Your task to perform on an android device: refresh tabs in the chrome app Image 0: 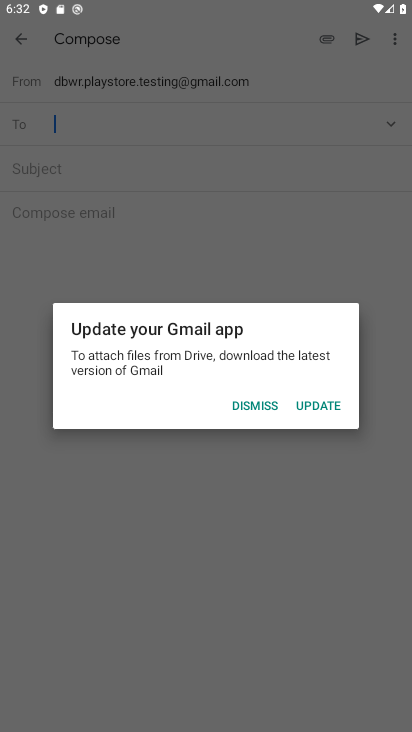
Step 0: press home button
Your task to perform on an android device: refresh tabs in the chrome app Image 1: 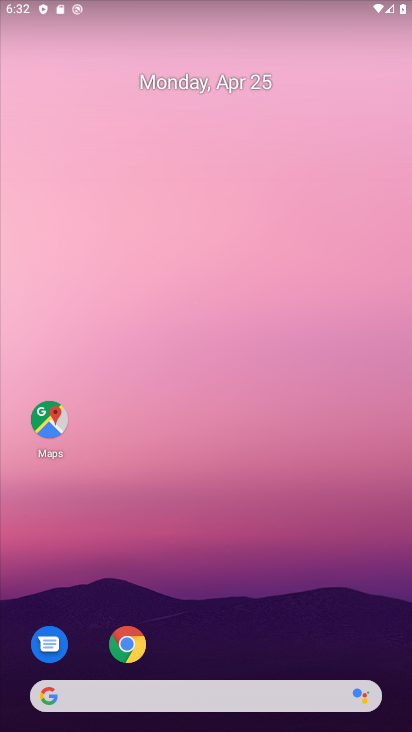
Step 1: click (132, 641)
Your task to perform on an android device: refresh tabs in the chrome app Image 2: 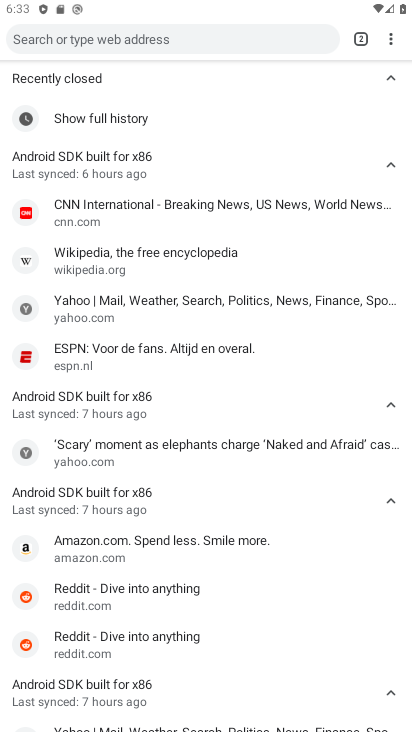
Step 2: click (362, 36)
Your task to perform on an android device: refresh tabs in the chrome app Image 3: 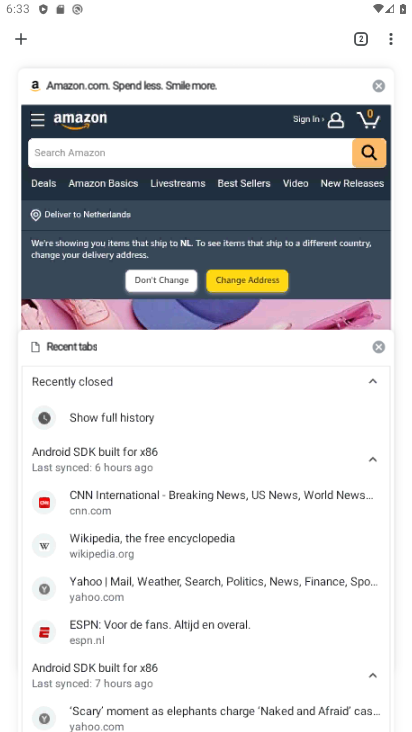
Step 3: click (14, 29)
Your task to perform on an android device: refresh tabs in the chrome app Image 4: 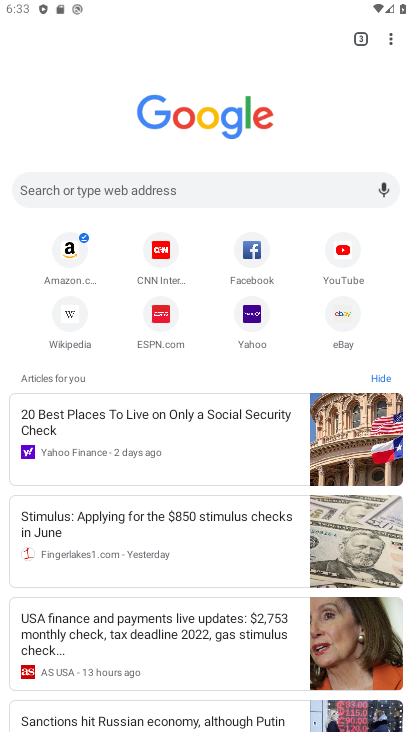
Step 4: click (392, 33)
Your task to perform on an android device: refresh tabs in the chrome app Image 5: 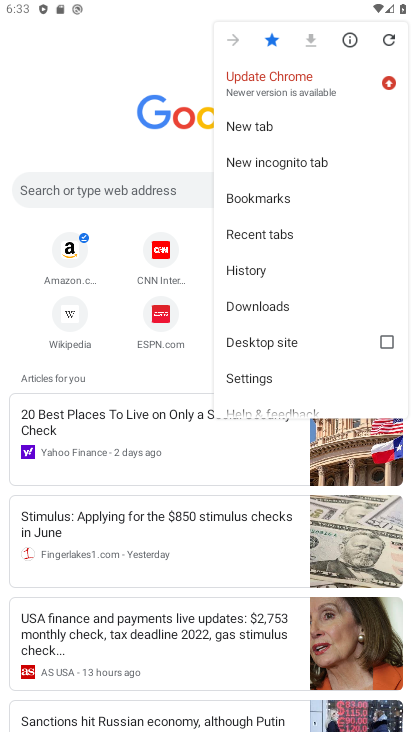
Step 5: click (391, 42)
Your task to perform on an android device: refresh tabs in the chrome app Image 6: 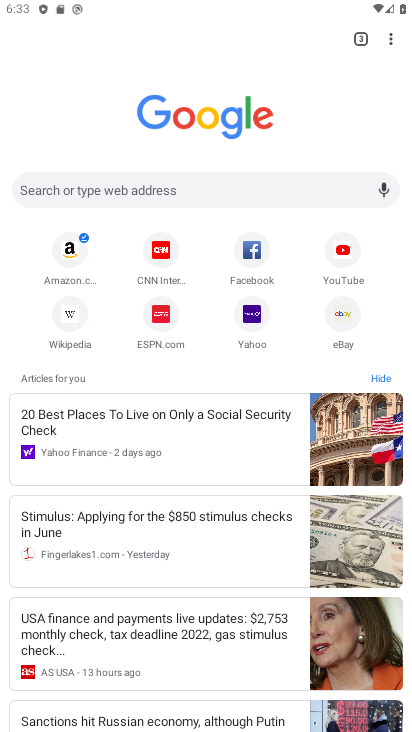
Step 6: click (391, 35)
Your task to perform on an android device: refresh tabs in the chrome app Image 7: 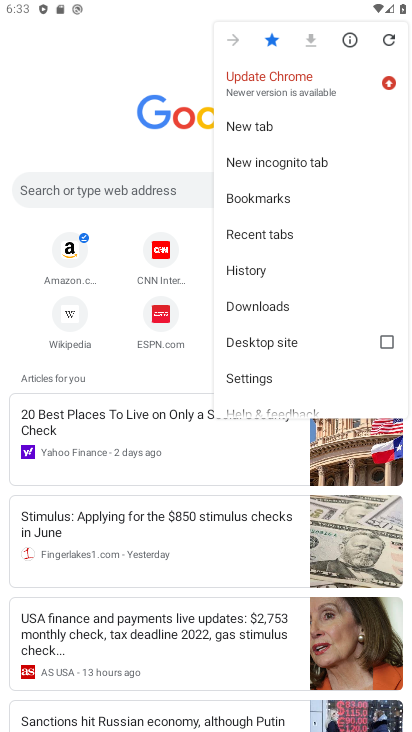
Step 7: click (390, 38)
Your task to perform on an android device: refresh tabs in the chrome app Image 8: 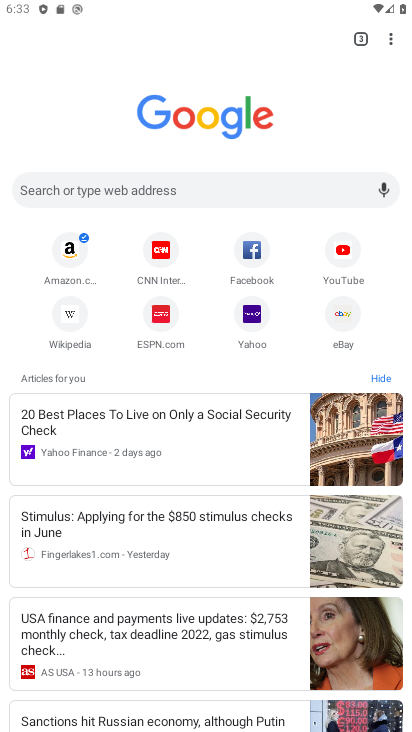
Step 8: task complete